Your task to perform on an android device: empty trash in google photos Image 0: 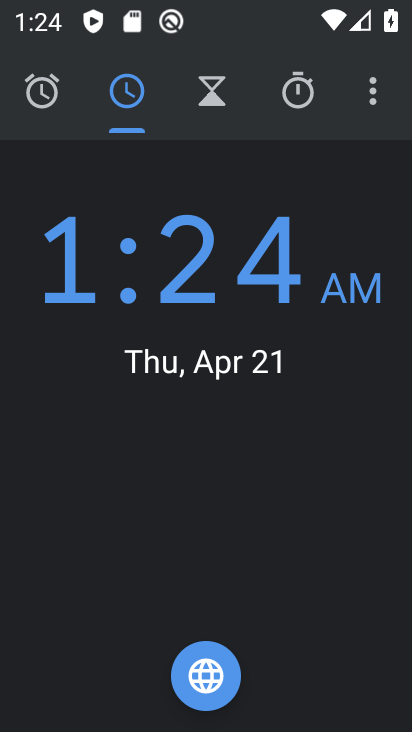
Step 0: press home button
Your task to perform on an android device: empty trash in google photos Image 1: 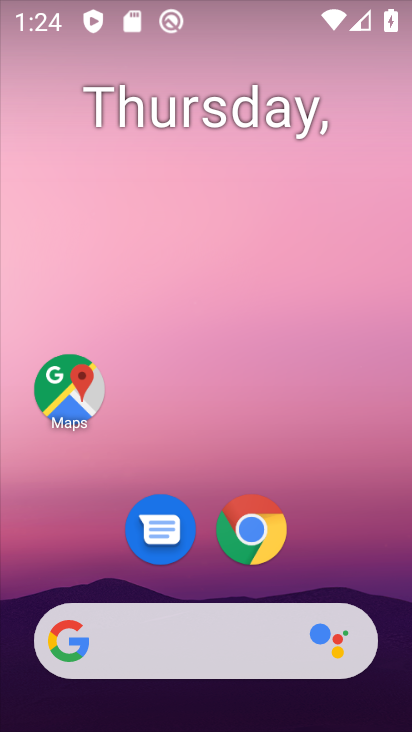
Step 1: drag from (210, 650) to (205, 7)
Your task to perform on an android device: empty trash in google photos Image 2: 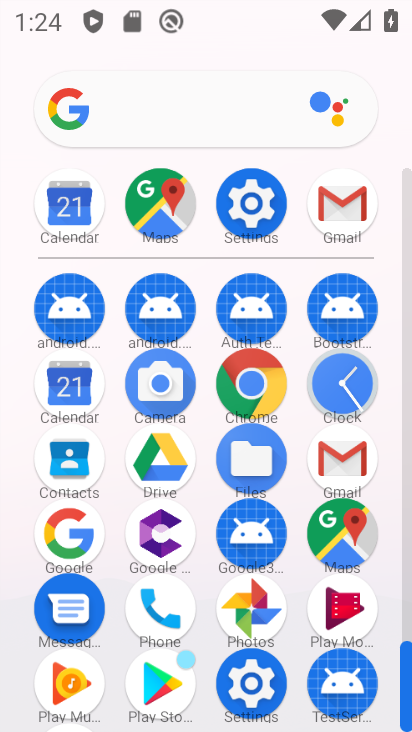
Step 2: click (257, 608)
Your task to perform on an android device: empty trash in google photos Image 3: 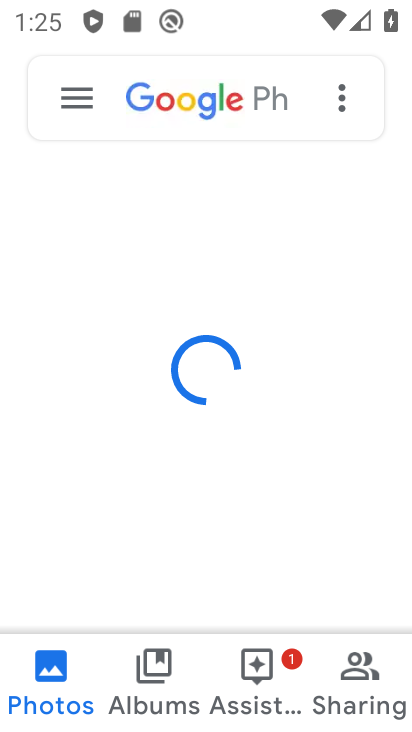
Step 3: click (78, 91)
Your task to perform on an android device: empty trash in google photos Image 4: 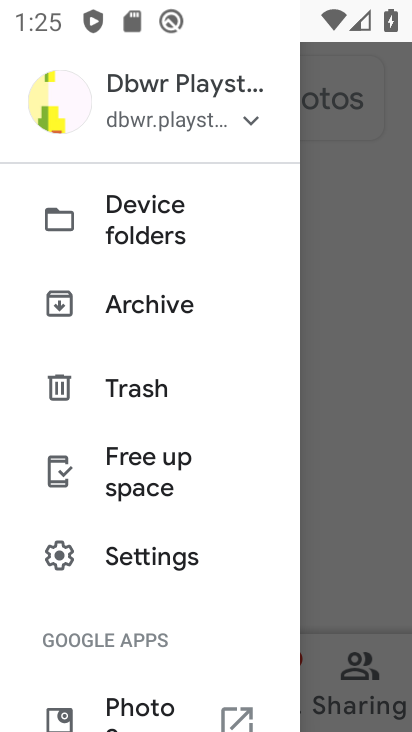
Step 4: click (137, 378)
Your task to perform on an android device: empty trash in google photos Image 5: 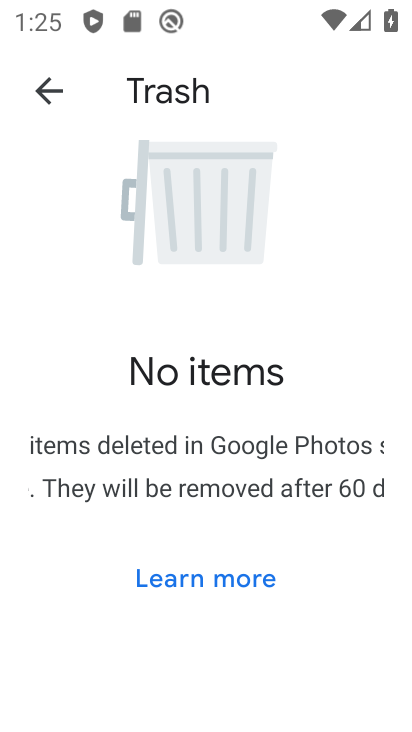
Step 5: task complete